Your task to perform on an android device: Open privacy settings Image 0: 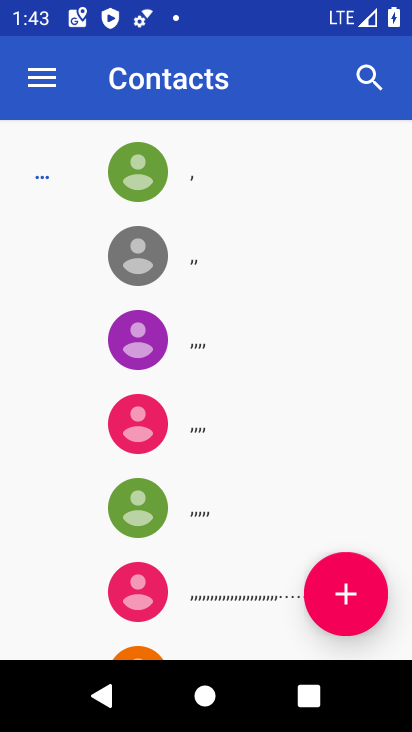
Step 0: press home button
Your task to perform on an android device: Open privacy settings Image 1: 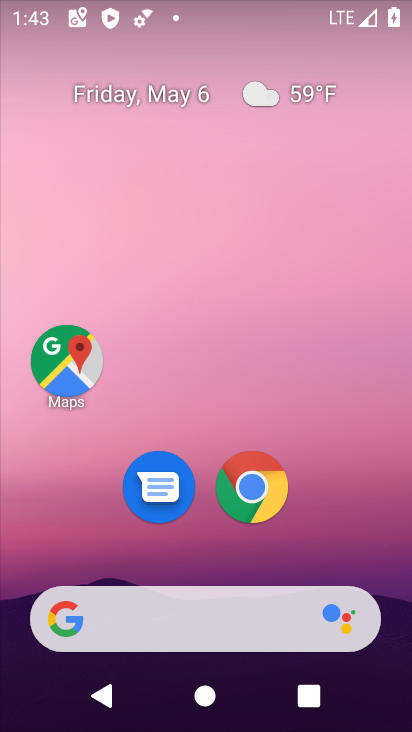
Step 1: drag from (197, 587) to (265, 82)
Your task to perform on an android device: Open privacy settings Image 2: 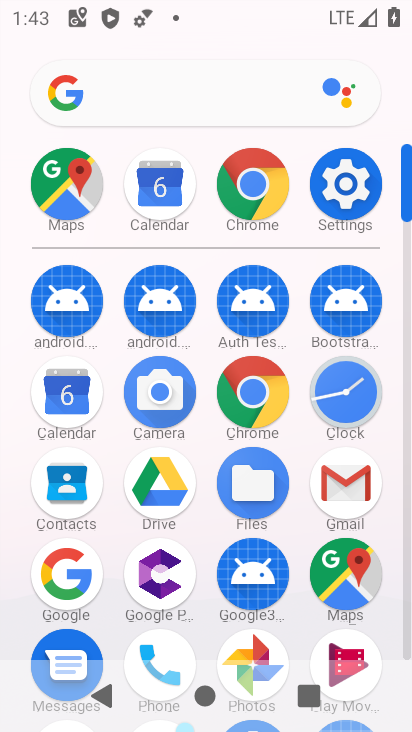
Step 2: click (338, 192)
Your task to perform on an android device: Open privacy settings Image 3: 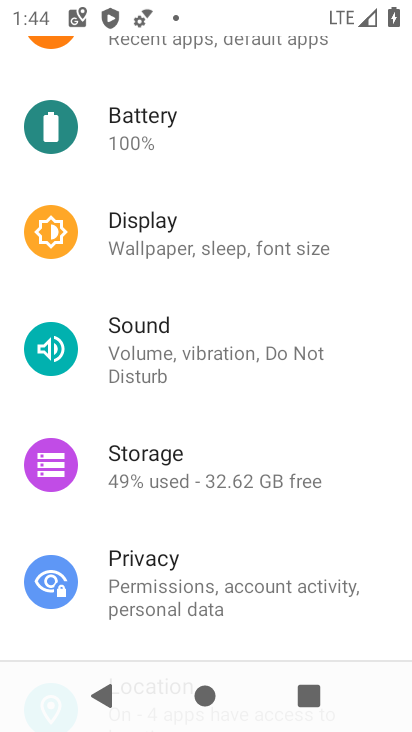
Step 3: click (193, 607)
Your task to perform on an android device: Open privacy settings Image 4: 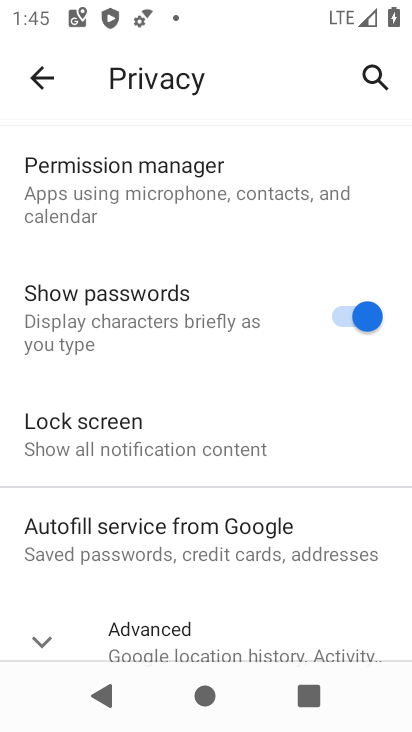
Step 4: task complete